Your task to perform on an android device: Open ESPN.com Image 0: 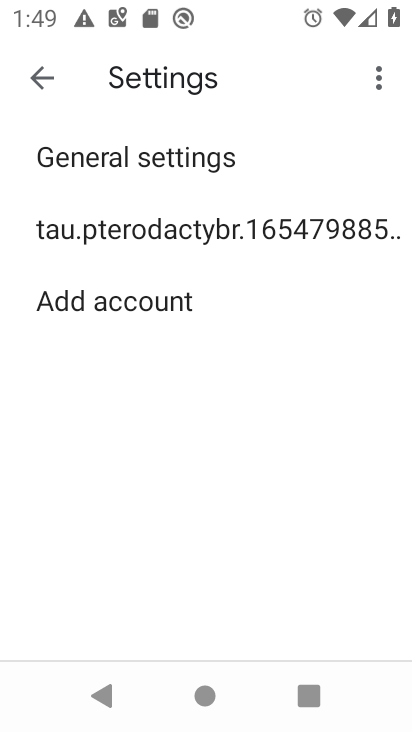
Step 0: press back button
Your task to perform on an android device: Open ESPN.com Image 1: 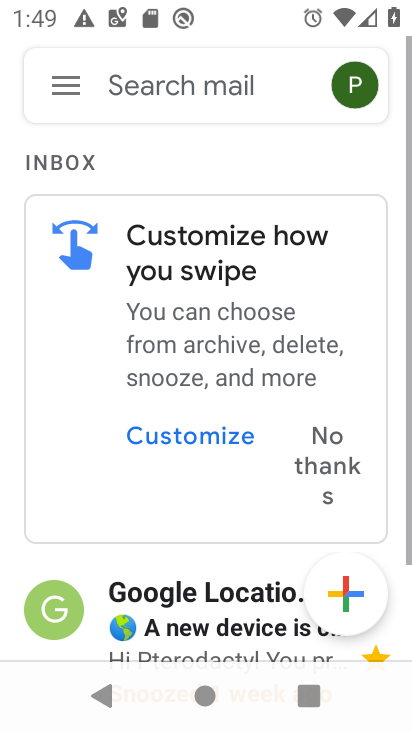
Step 1: press back button
Your task to perform on an android device: Open ESPN.com Image 2: 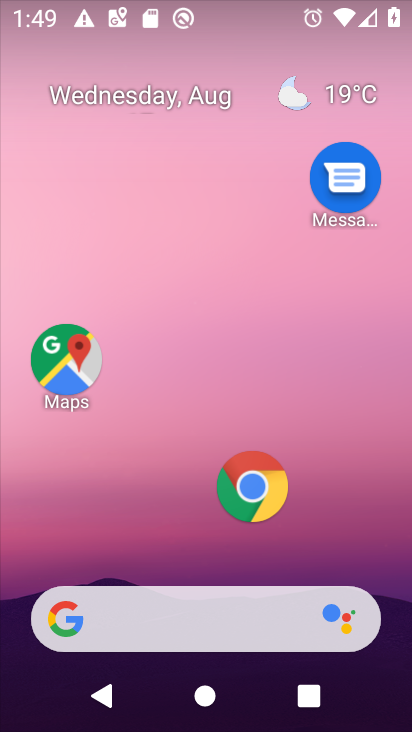
Step 2: click (243, 476)
Your task to perform on an android device: Open ESPN.com Image 3: 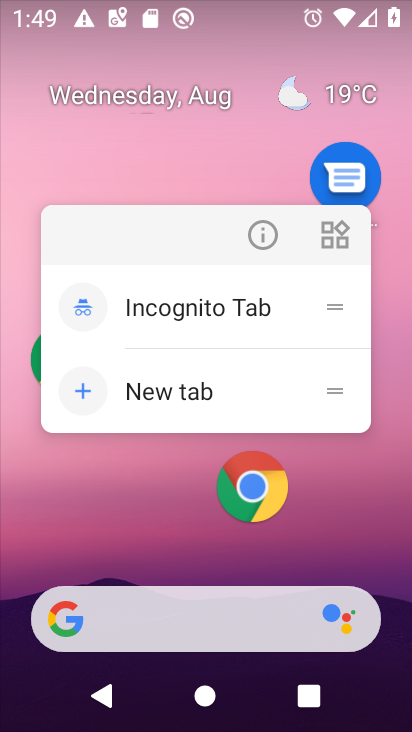
Step 3: click (258, 489)
Your task to perform on an android device: Open ESPN.com Image 4: 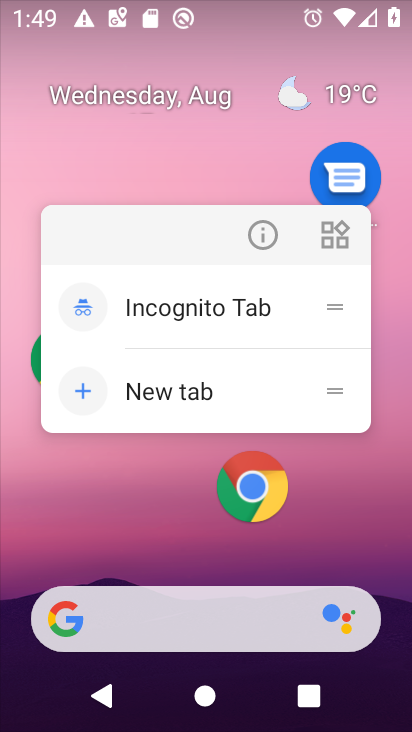
Step 4: click (258, 489)
Your task to perform on an android device: Open ESPN.com Image 5: 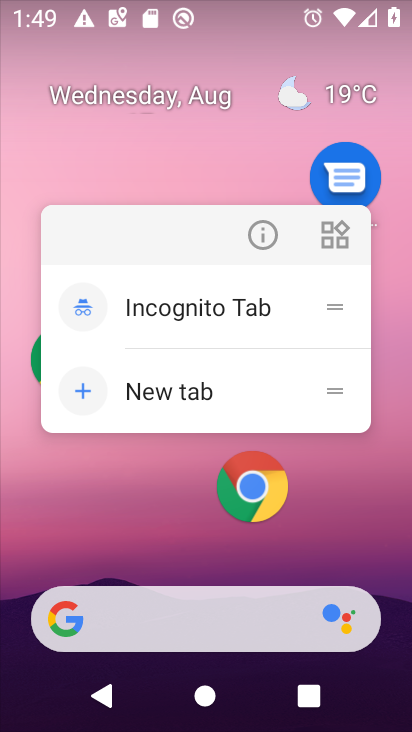
Step 5: click (249, 477)
Your task to perform on an android device: Open ESPN.com Image 6: 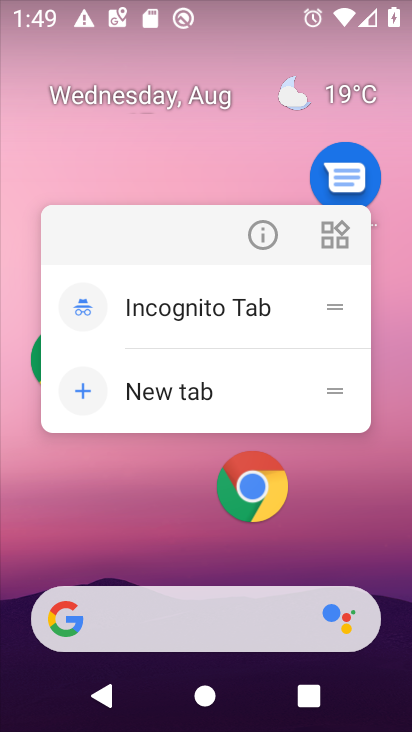
Step 6: click (243, 491)
Your task to perform on an android device: Open ESPN.com Image 7: 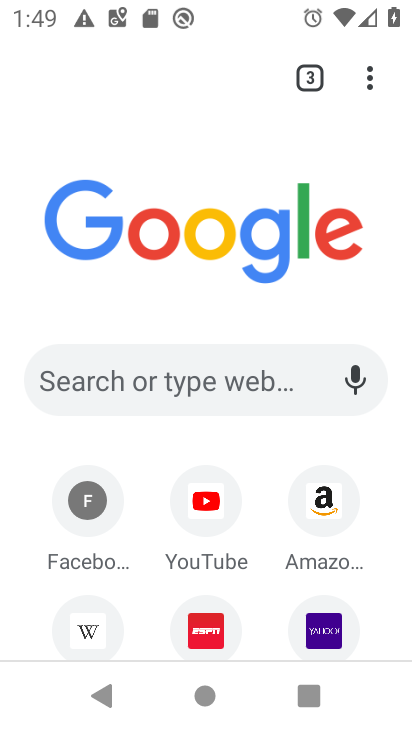
Step 7: click (196, 624)
Your task to perform on an android device: Open ESPN.com Image 8: 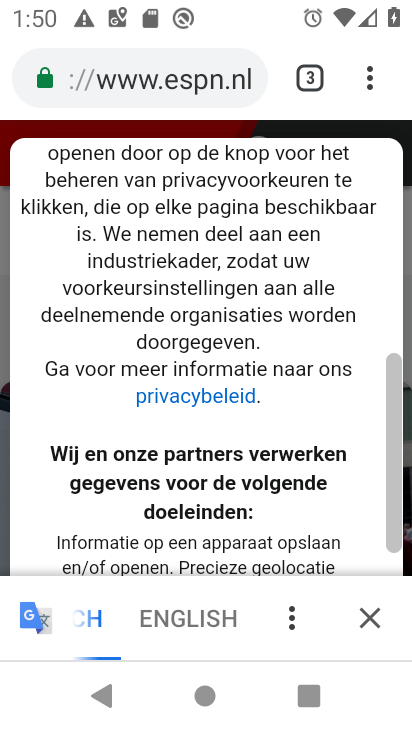
Step 8: task complete